Your task to perform on an android device: Go to settings Image 0: 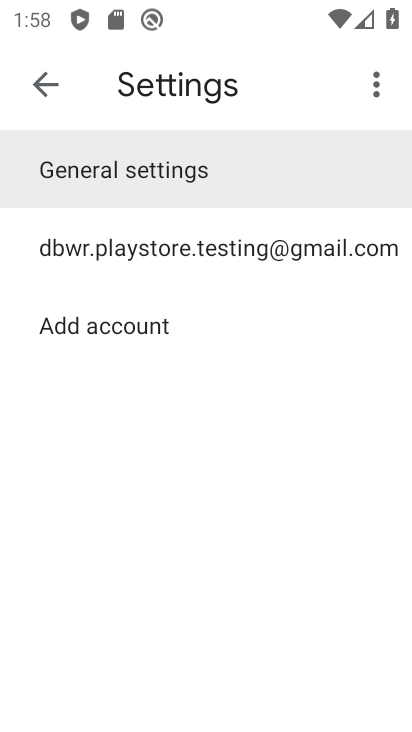
Step 0: press home button
Your task to perform on an android device: Go to settings Image 1: 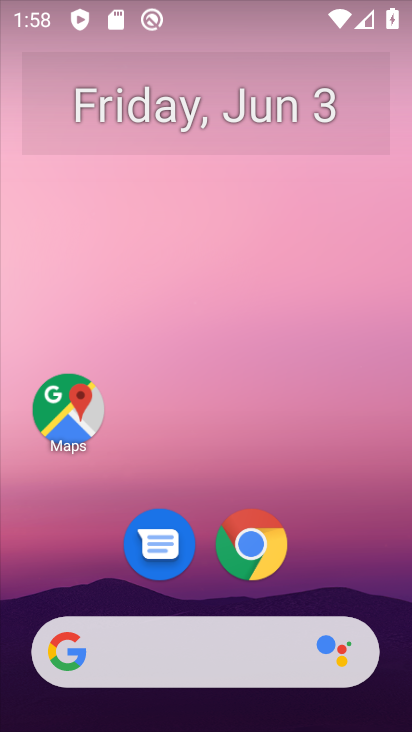
Step 1: drag from (369, 577) to (361, 94)
Your task to perform on an android device: Go to settings Image 2: 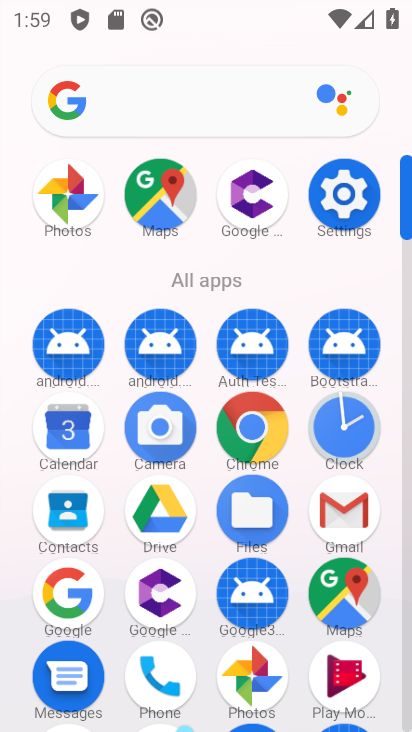
Step 2: click (351, 193)
Your task to perform on an android device: Go to settings Image 3: 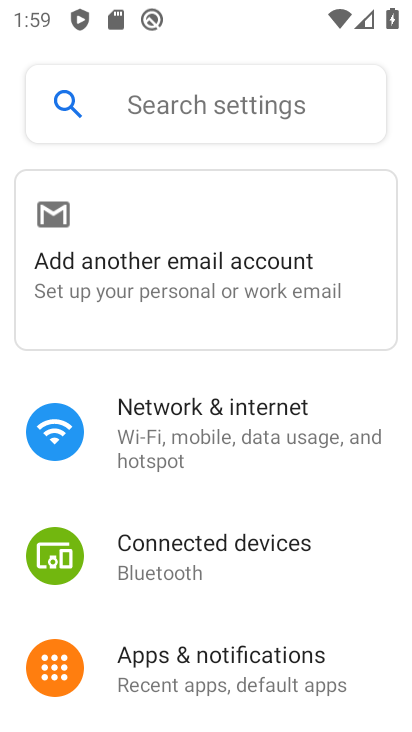
Step 3: task complete